Your task to perform on an android device: Show me recent news Image 0: 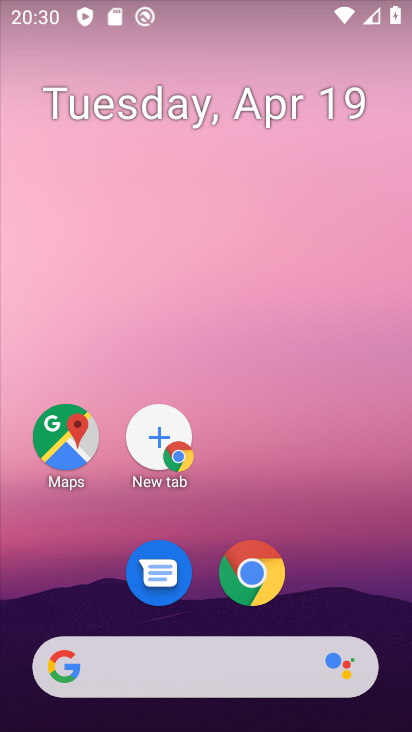
Step 0: drag from (8, 296) to (321, 317)
Your task to perform on an android device: Show me recent news Image 1: 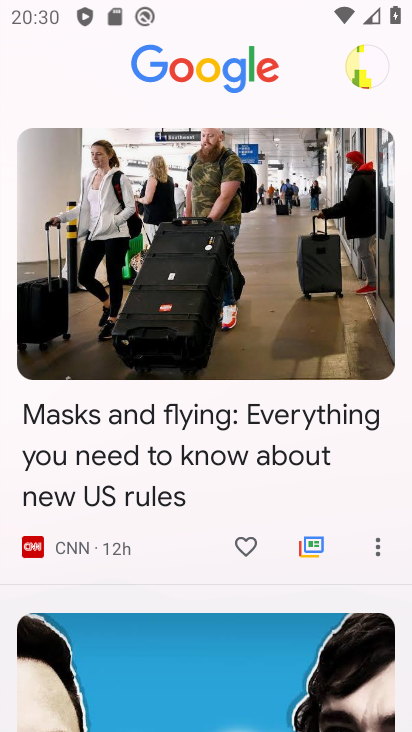
Step 1: task complete